Your task to perform on an android device: Open the Play Movies app and select the watchlist tab. Image 0: 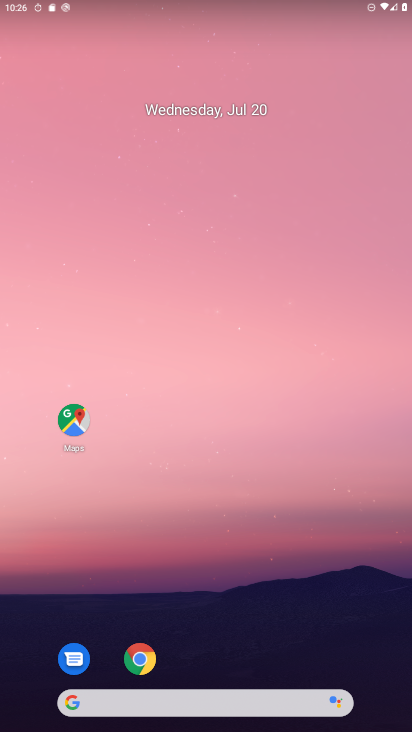
Step 0: drag from (338, 660) to (294, 106)
Your task to perform on an android device: Open the Play Movies app and select the watchlist tab. Image 1: 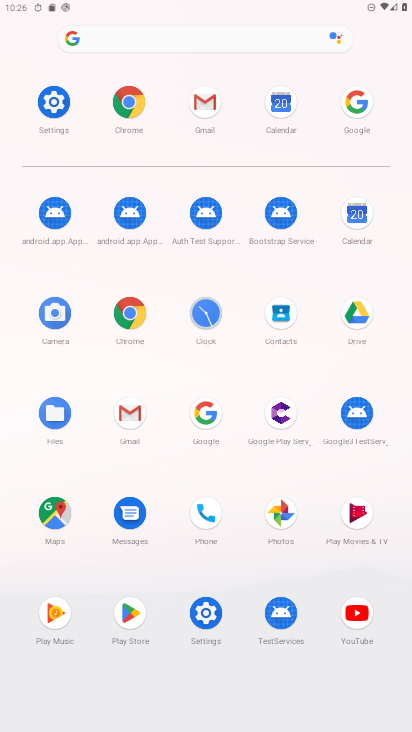
Step 1: click (360, 522)
Your task to perform on an android device: Open the Play Movies app and select the watchlist tab. Image 2: 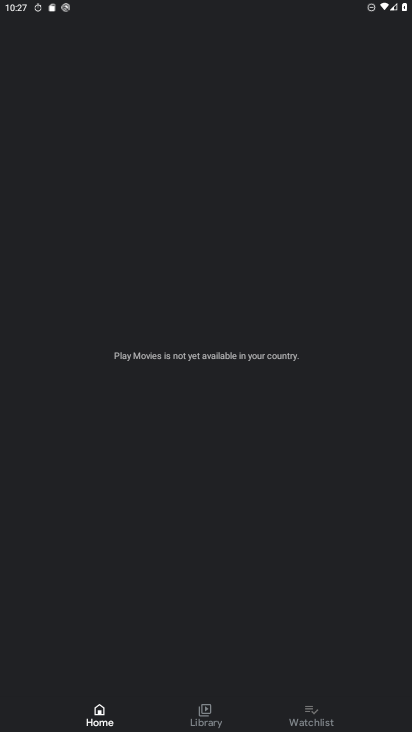
Step 2: click (316, 714)
Your task to perform on an android device: Open the Play Movies app and select the watchlist tab. Image 3: 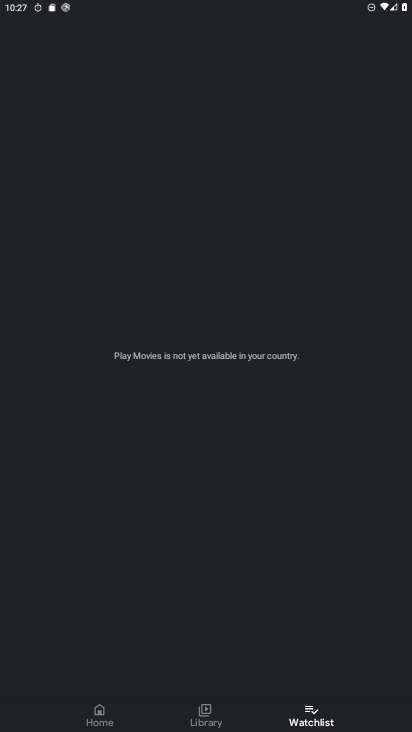
Step 3: task complete